Your task to perform on an android device: turn off notifications settings in the gmail app Image 0: 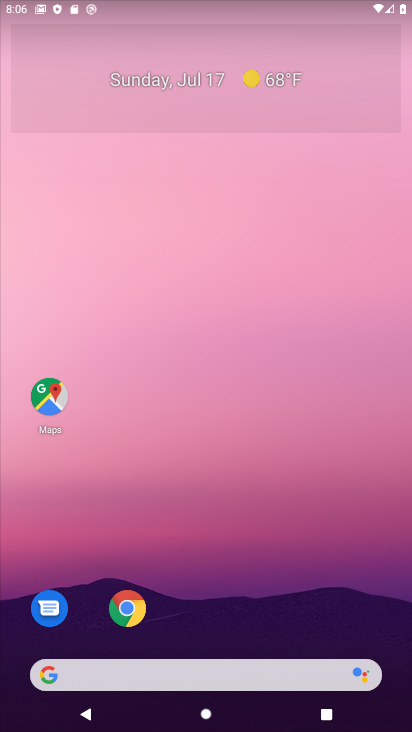
Step 0: drag from (303, 583) to (292, 2)
Your task to perform on an android device: turn off notifications settings in the gmail app Image 1: 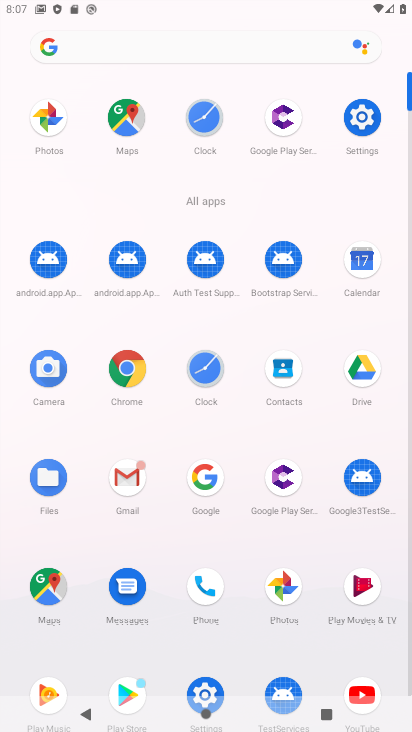
Step 1: click (121, 484)
Your task to perform on an android device: turn off notifications settings in the gmail app Image 2: 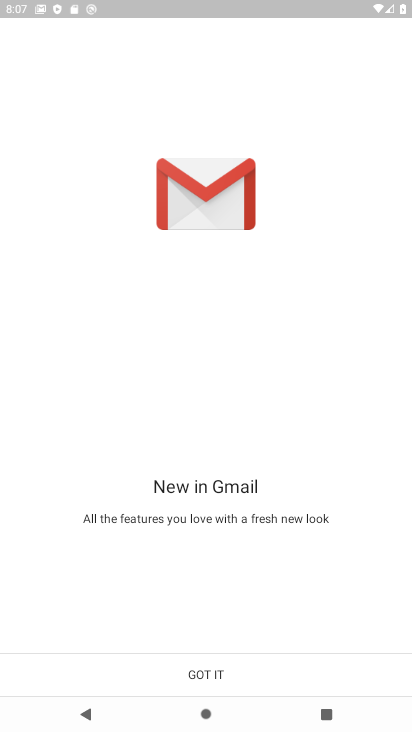
Step 2: click (190, 651)
Your task to perform on an android device: turn off notifications settings in the gmail app Image 3: 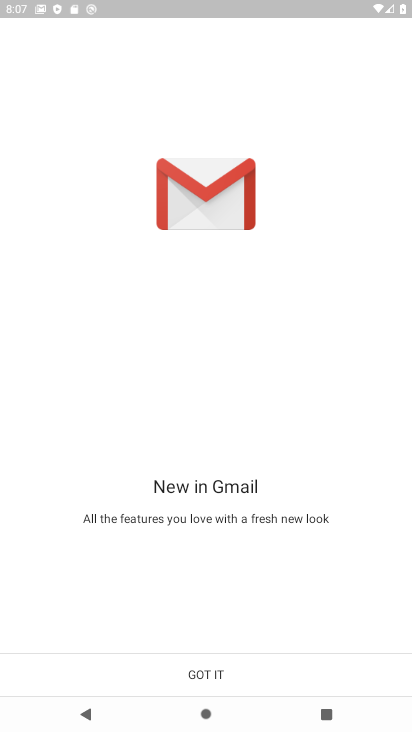
Step 3: click (190, 664)
Your task to perform on an android device: turn off notifications settings in the gmail app Image 4: 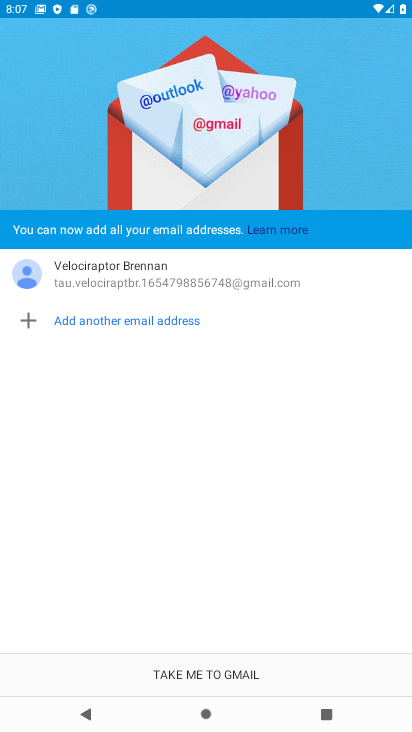
Step 4: click (190, 664)
Your task to perform on an android device: turn off notifications settings in the gmail app Image 5: 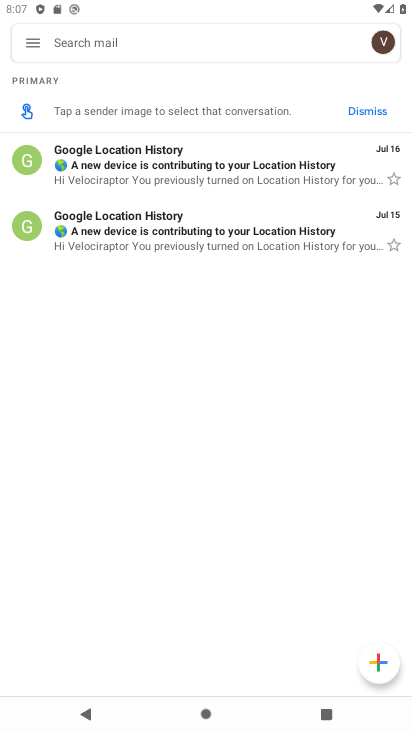
Step 5: click (34, 52)
Your task to perform on an android device: turn off notifications settings in the gmail app Image 6: 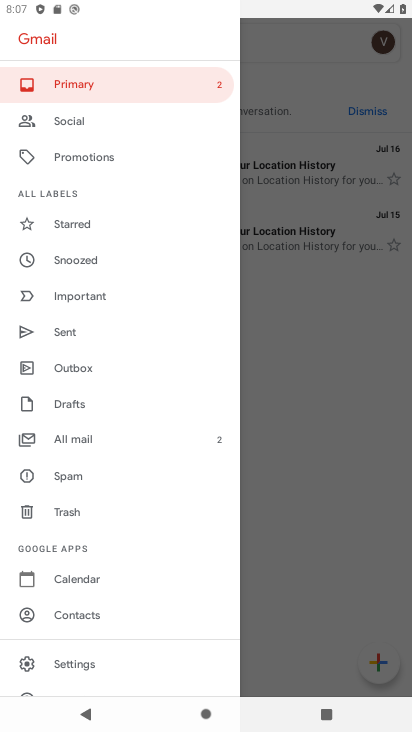
Step 6: click (83, 661)
Your task to perform on an android device: turn off notifications settings in the gmail app Image 7: 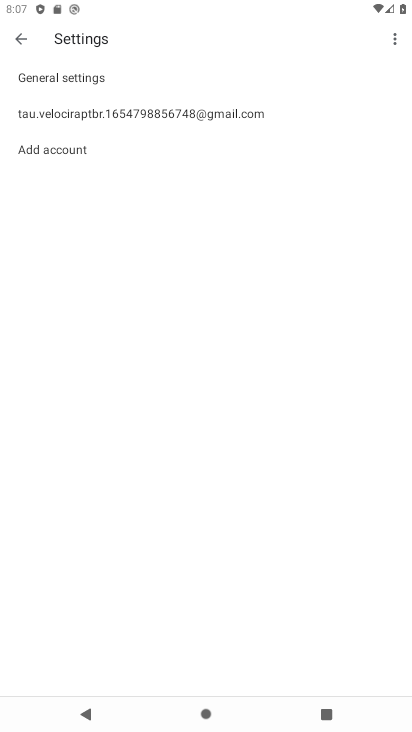
Step 7: click (196, 127)
Your task to perform on an android device: turn off notifications settings in the gmail app Image 8: 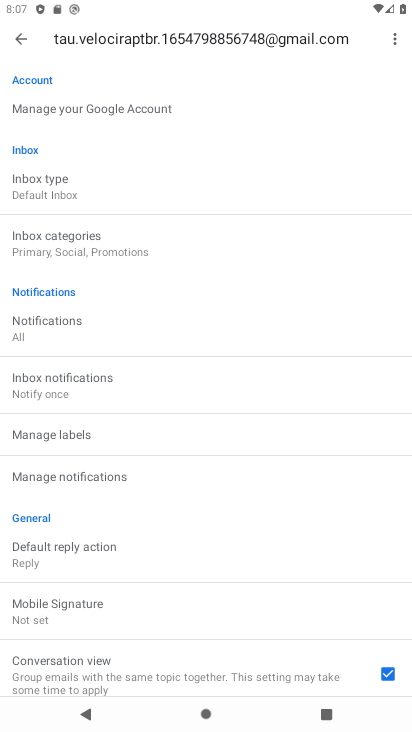
Step 8: click (68, 463)
Your task to perform on an android device: turn off notifications settings in the gmail app Image 9: 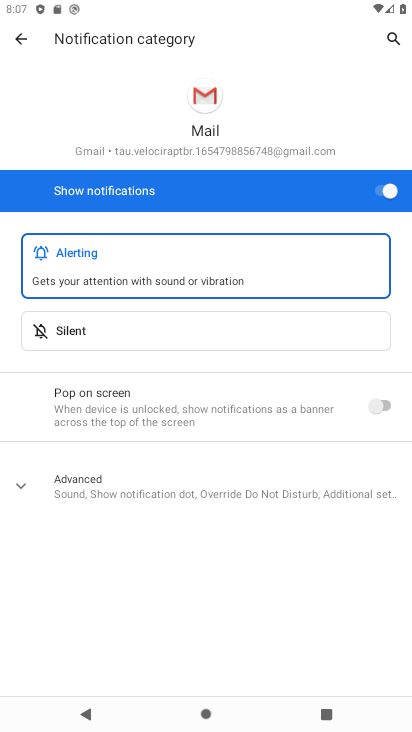
Step 9: click (381, 197)
Your task to perform on an android device: turn off notifications settings in the gmail app Image 10: 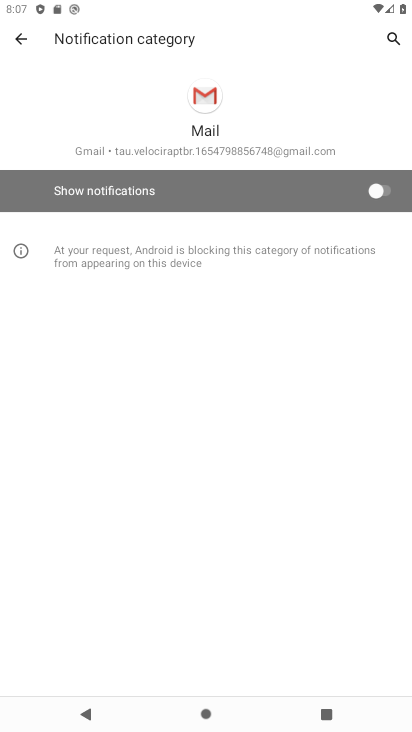
Step 10: task complete